Your task to perform on an android device: turn vacation reply on in the gmail app Image 0: 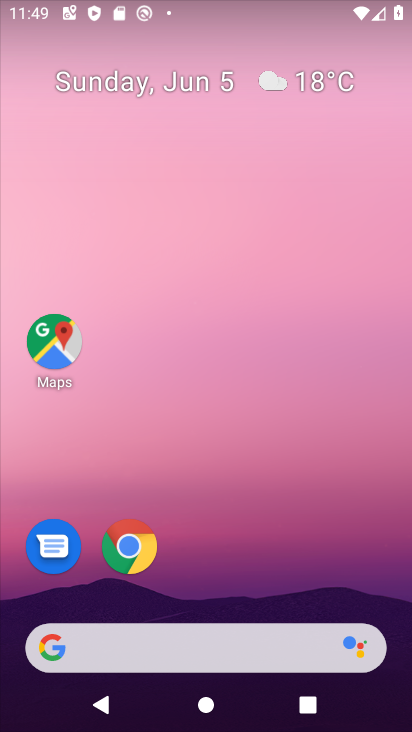
Step 0: drag from (308, 553) to (305, 333)
Your task to perform on an android device: turn vacation reply on in the gmail app Image 1: 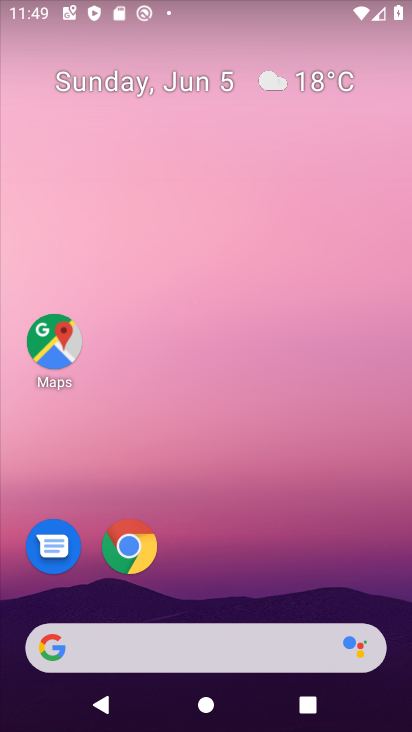
Step 1: drag from (274, 519) to (288, 85)
Your task to perform on an android device: turn vacation reply on in the gmail app Image 2: 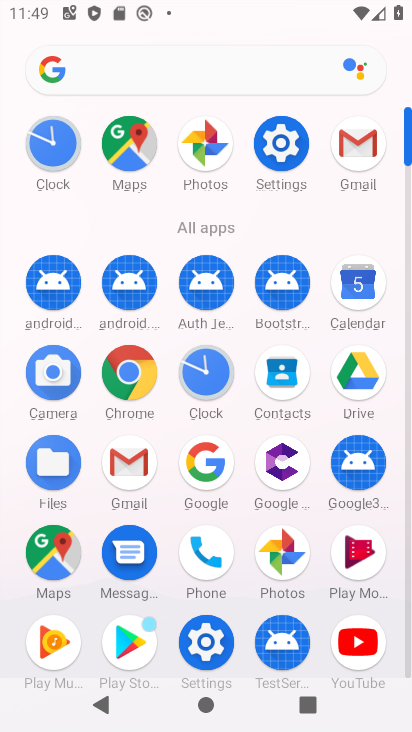
Step 2: click (349, 146)
Your task to perform on an android device: turn vacation reply on in the gmail app Image 3: 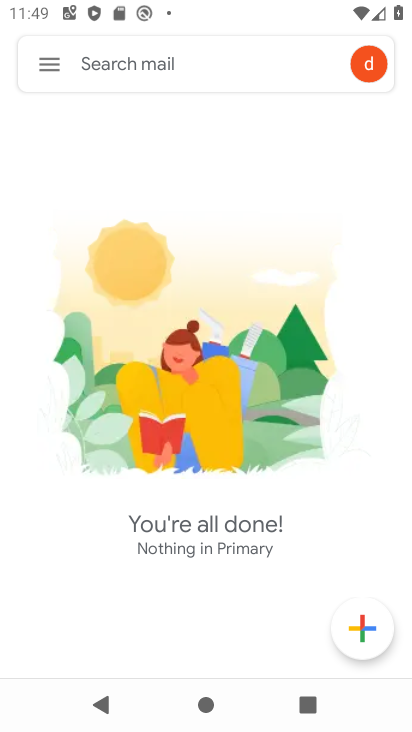
Step 3: click (34, 63)
Your task to perform on an android device: turn vacation reply on in the gmail app Image 4: 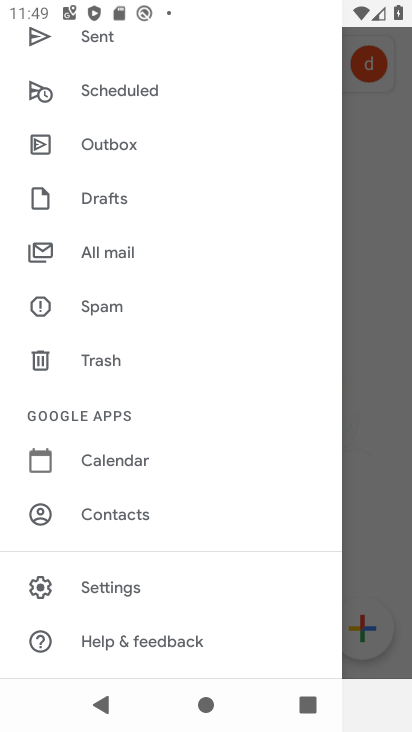
Step 4: click (116, 586)
Your task to perform on an android device: turn vacation reply on in the gmail app Image 5: 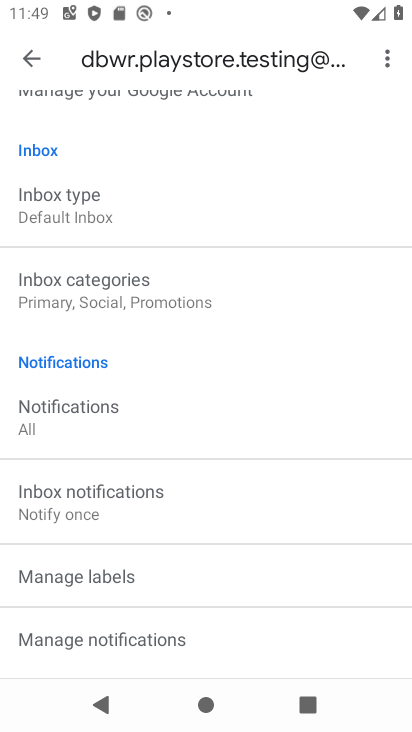
Step 5: drag from (285, 344) to (286, 84)
Your task to perform on an android device: turn vacation reply on in the gmail app Image 6: 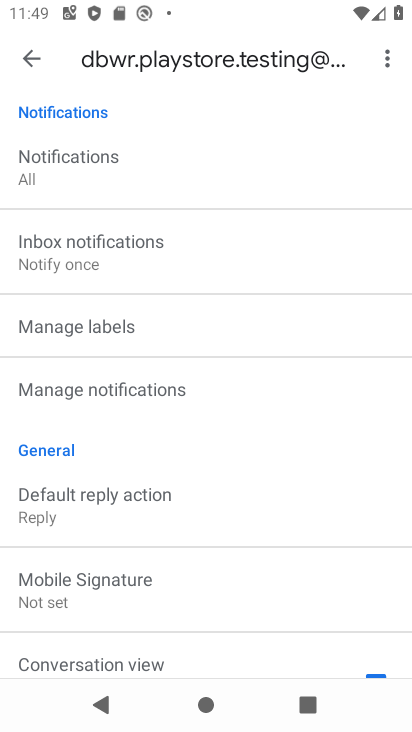
Step 6: drag from (237, 446) to (133, 54)
Your task to perform on an android device: turn vacation reply on in the gmail app Image 7: 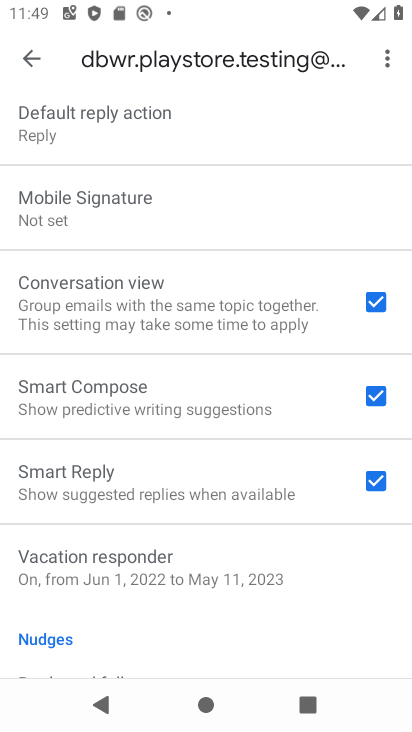
Step 7: click (180, 559)
Your task to perform on an android device: turn vacation reply on in the gmail app Image 8: 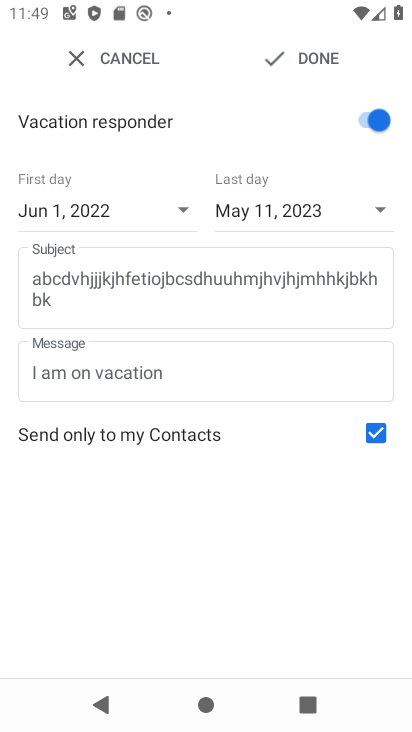
Step 8: task complete